Your task to perform on an android device: Open Google Image 0: 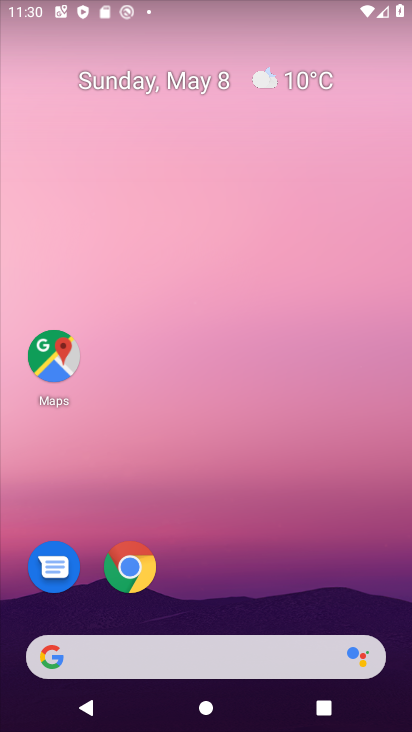
Step 0: drag from (266, 623) to (285, 243)
Your task to perform on an android device: Open Google Image 1: 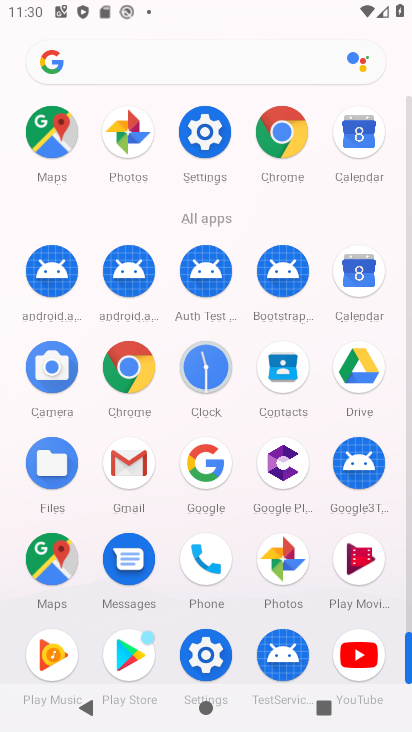
Step 1: click (205, 469)
Your task to perform on an android device: Open Google Image 2: 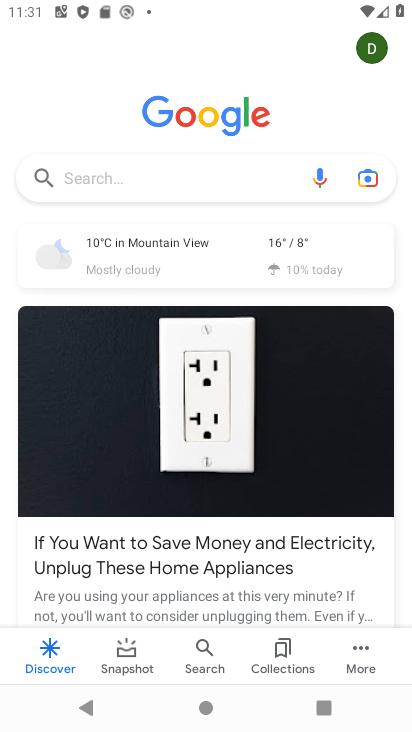
Step 2: task complete